Your task to perform on an android device: install app "Facebook Lite" Image 0: 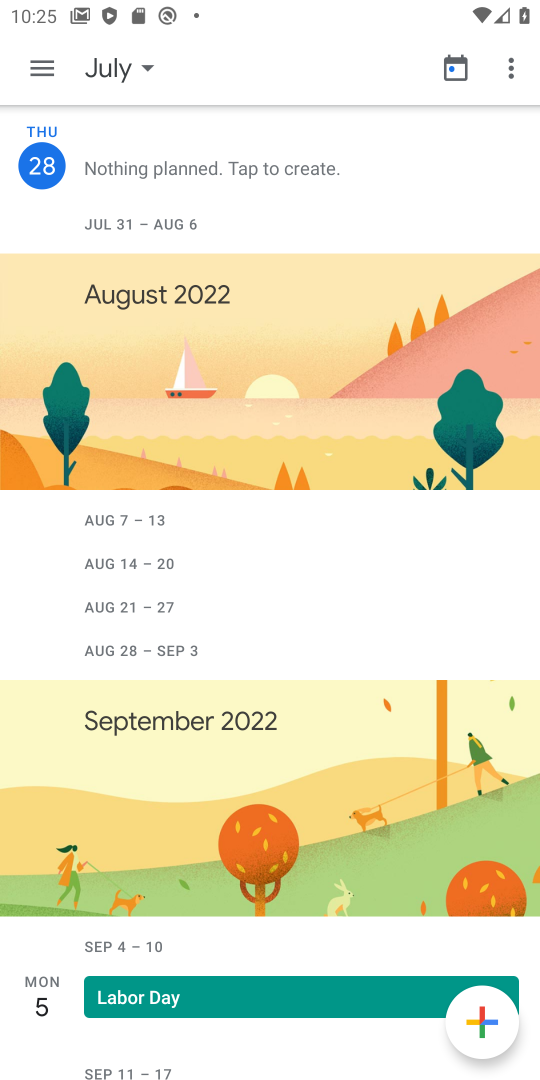
Step 0: press home button
Your task to perform on an android device: install app "Facebook Lite" Image 1: 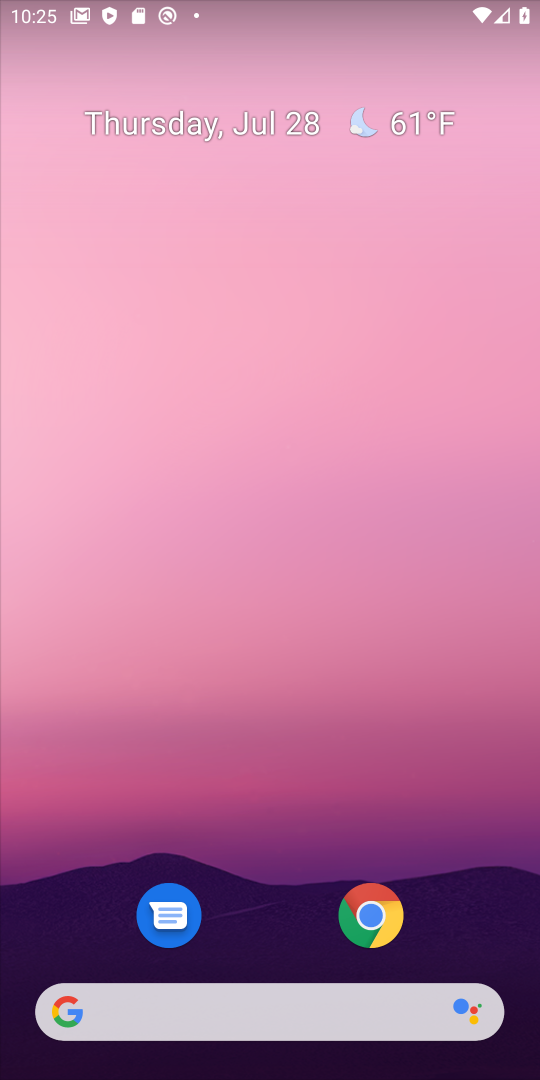
Step 1: drag from (290, 826) to (303, 0)
Your task to perform on an android device: install app "Facebook Lite" Image 2: 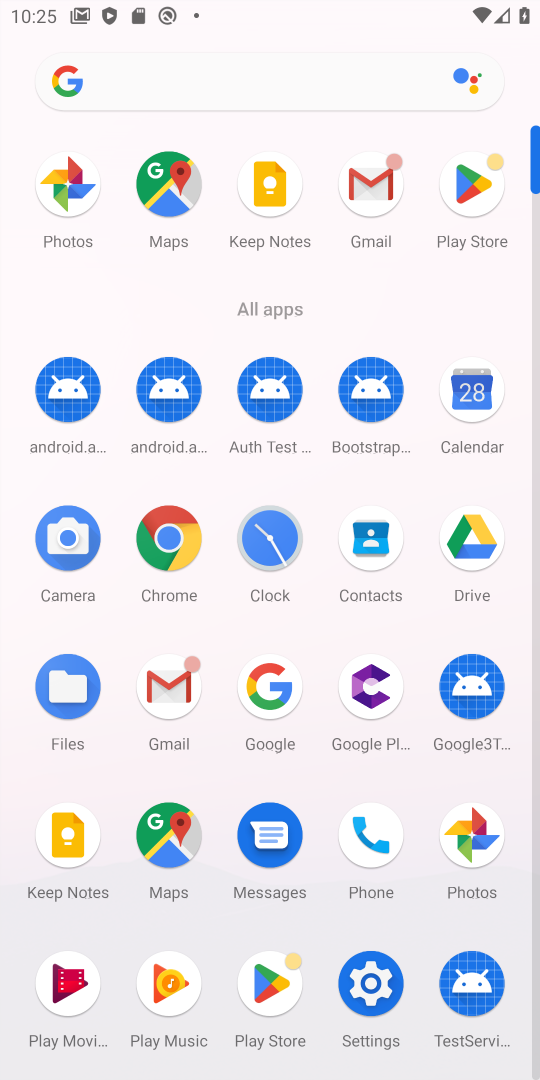
Step 2: click (456, 181)
Your task to perform on an android device: install app "Facebook Lite" Image 3: 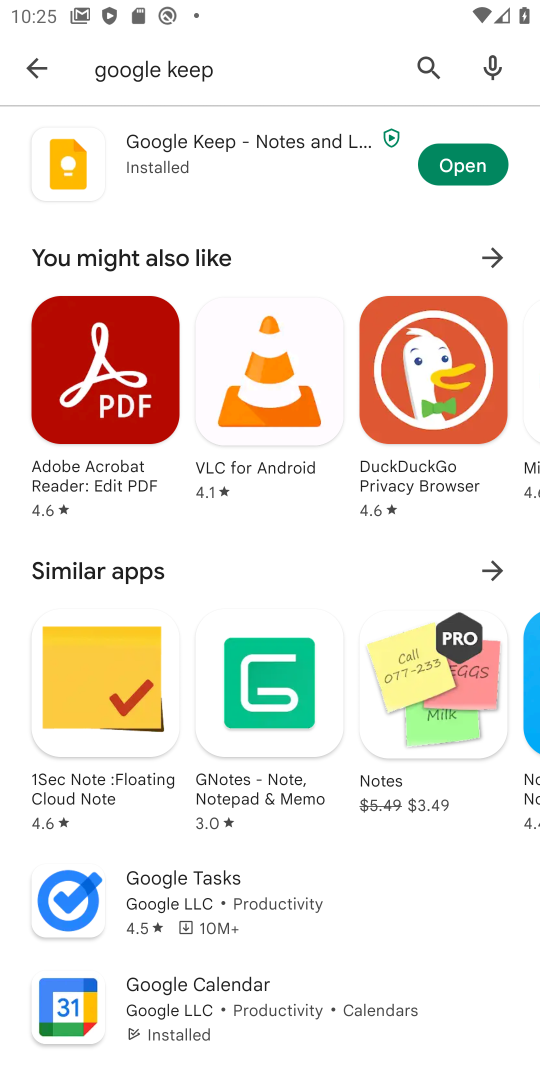
Step 3: click (37, 55)
Your task to perform on an android device: install app "Facebook Lite" Image 4: 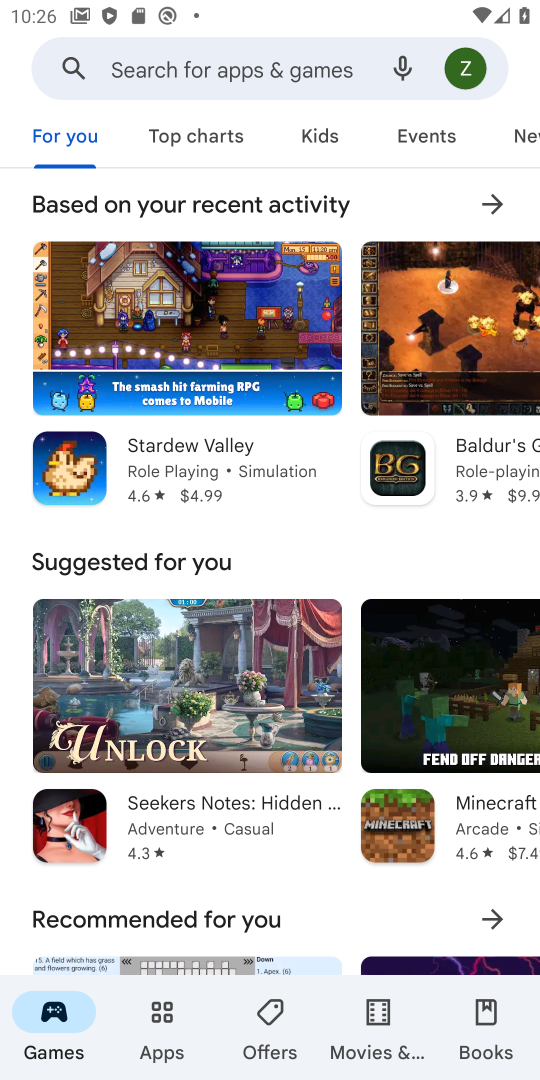
Step 4: click (129, 66)
Your task to perform on an android device: install app "Facebook Lite" Image 5: 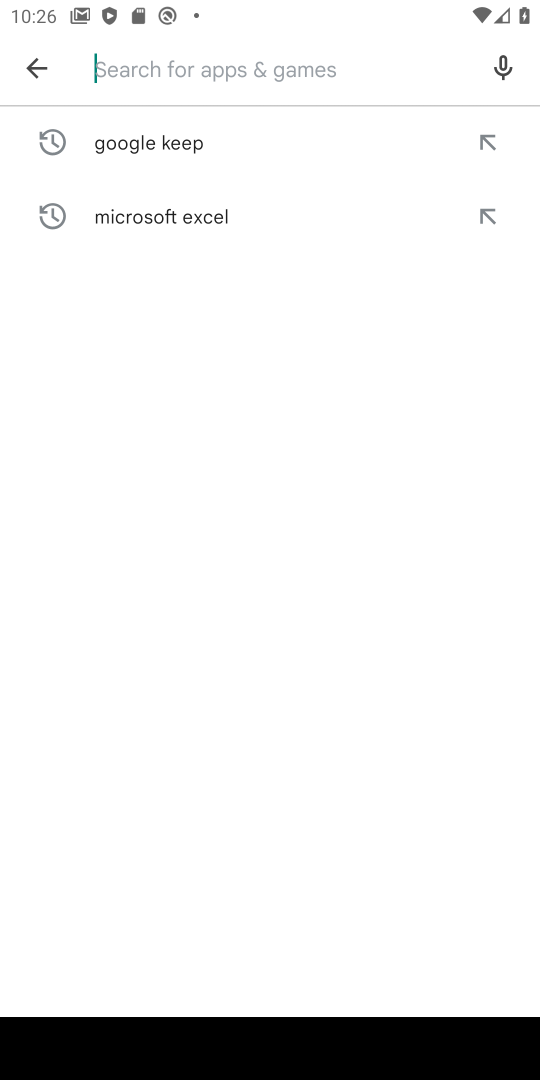
Step 5: type "Facebook Lite"
Your task to perform on an android device: install app "Facebook Lite" Image 6: 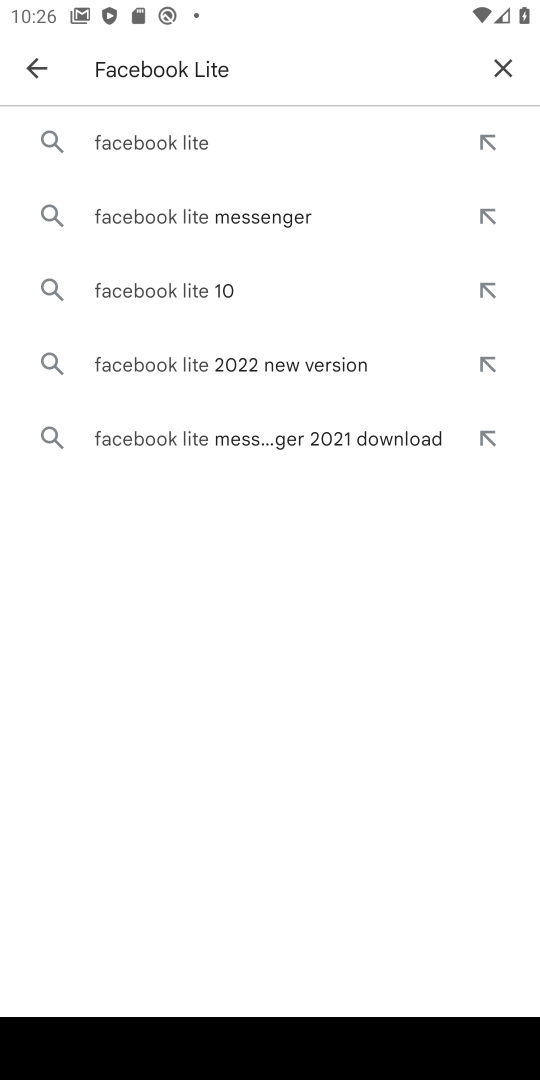
Step 6: click (133, 141)
Your task to perform on an android device: install app "Facebook Lite" Image 7: 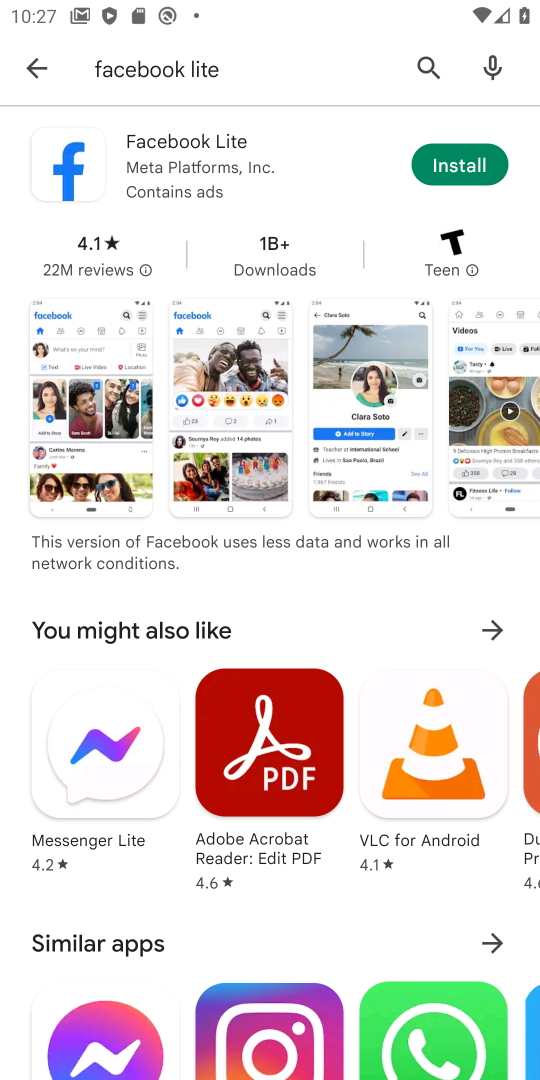
Step 7: click (463, 170)
Your task to perform on an android device: install app "Facebook Lite" Image 8: 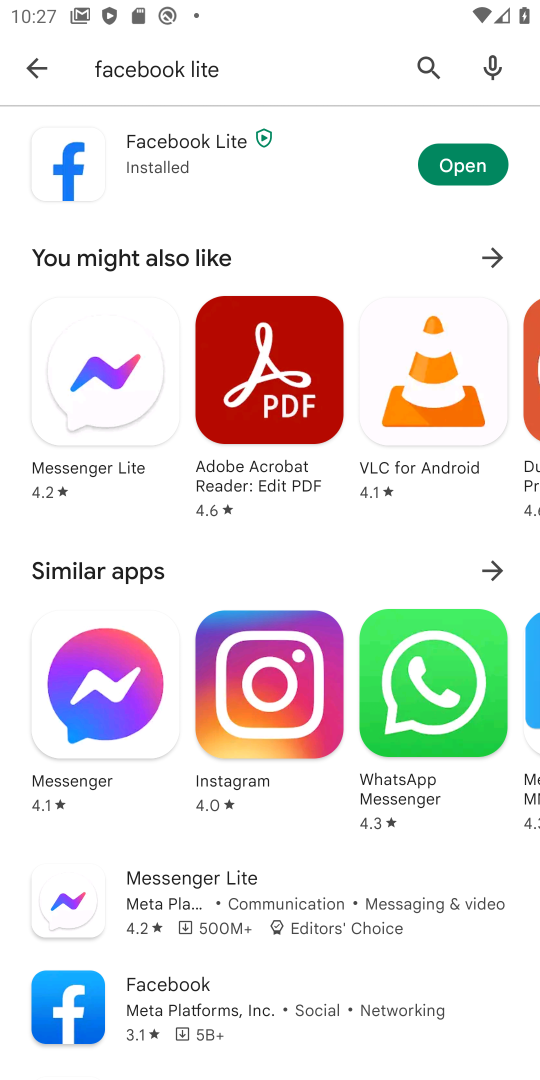
Step 8: task complete